Your task to perform on an android device: Open Maps and search for coffee Image 0: 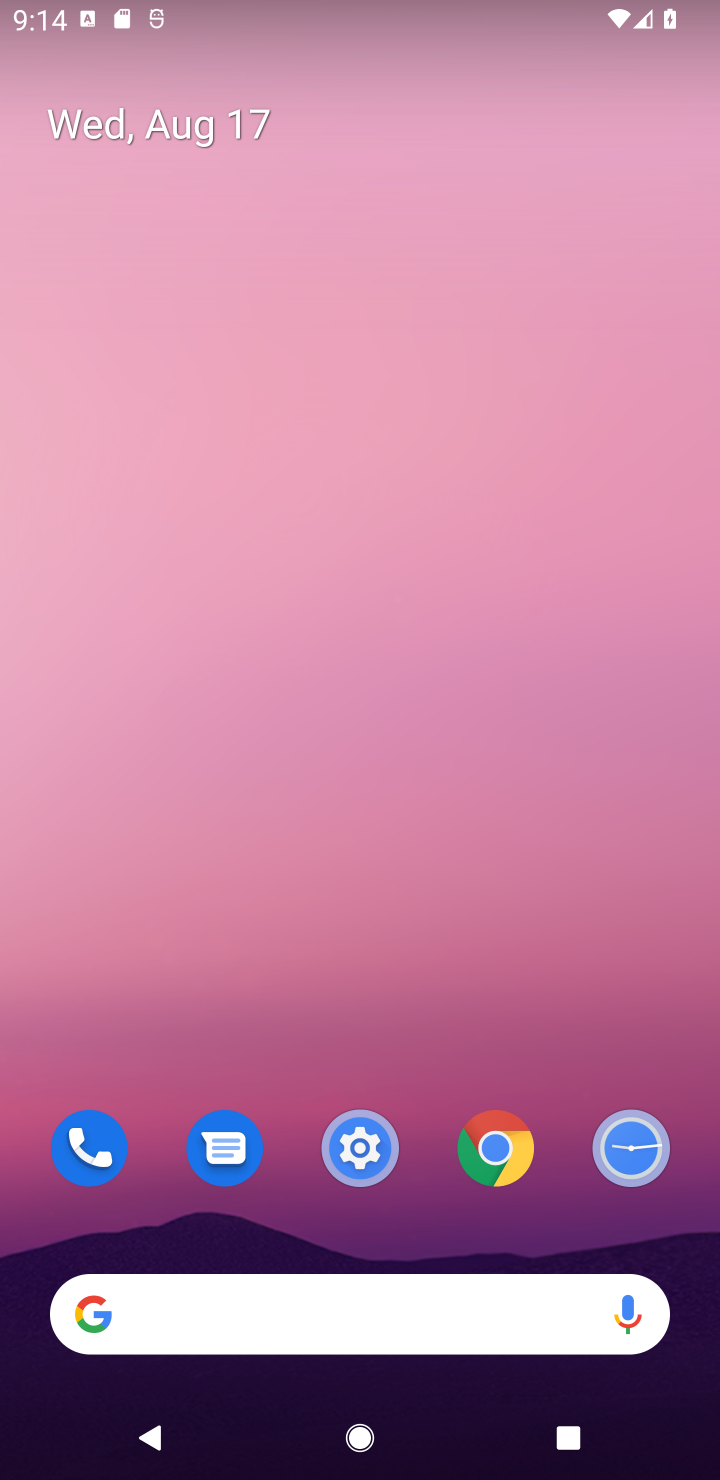
Step 0: drag from (439, 1223) to (355, 1)
Your task to perform on an android device: Open Maps and search for coffee Image 1: 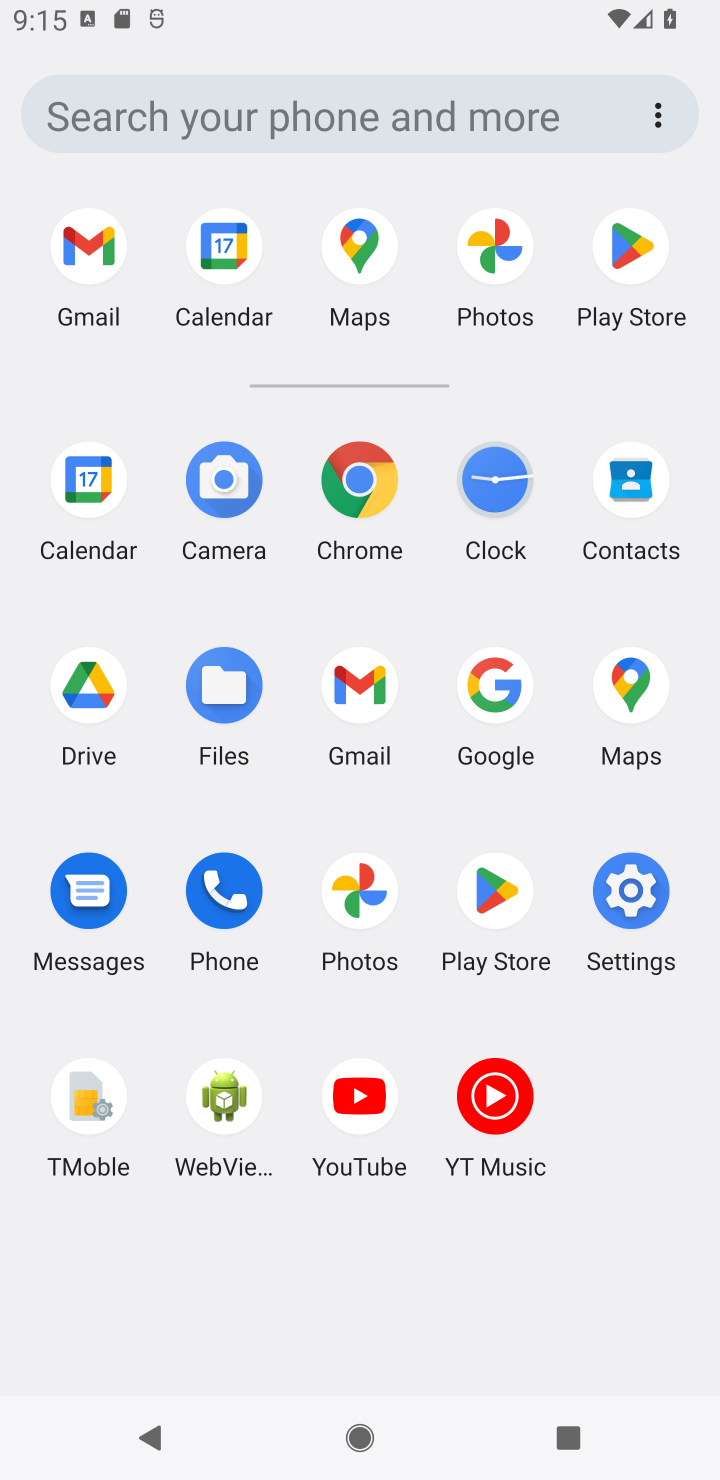
Step 1: click (634, 675)
Your task to perform on an android device: Open Maps and search for coffee Image 2: 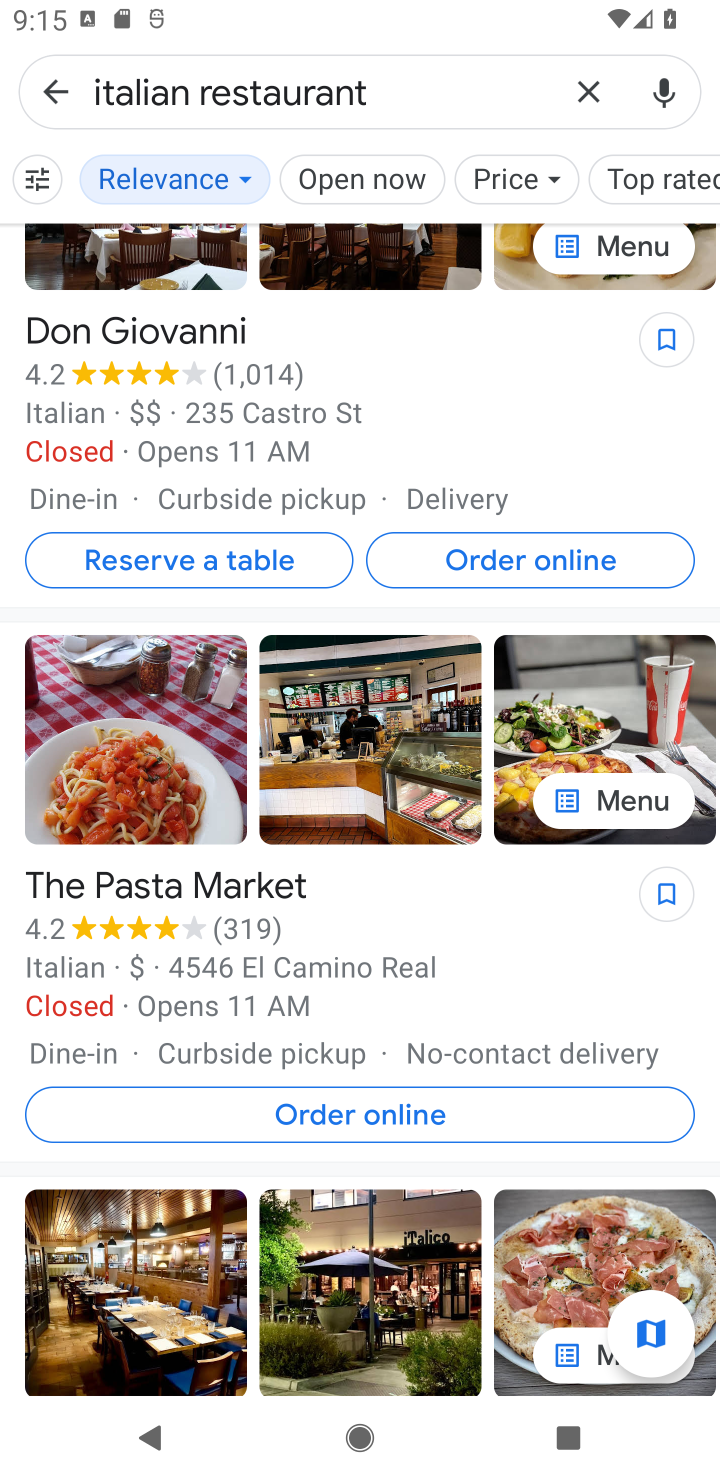
Step 2: click (591, 95)
Your task to perform on an android device: Open Maps and search for coffee Image 3: 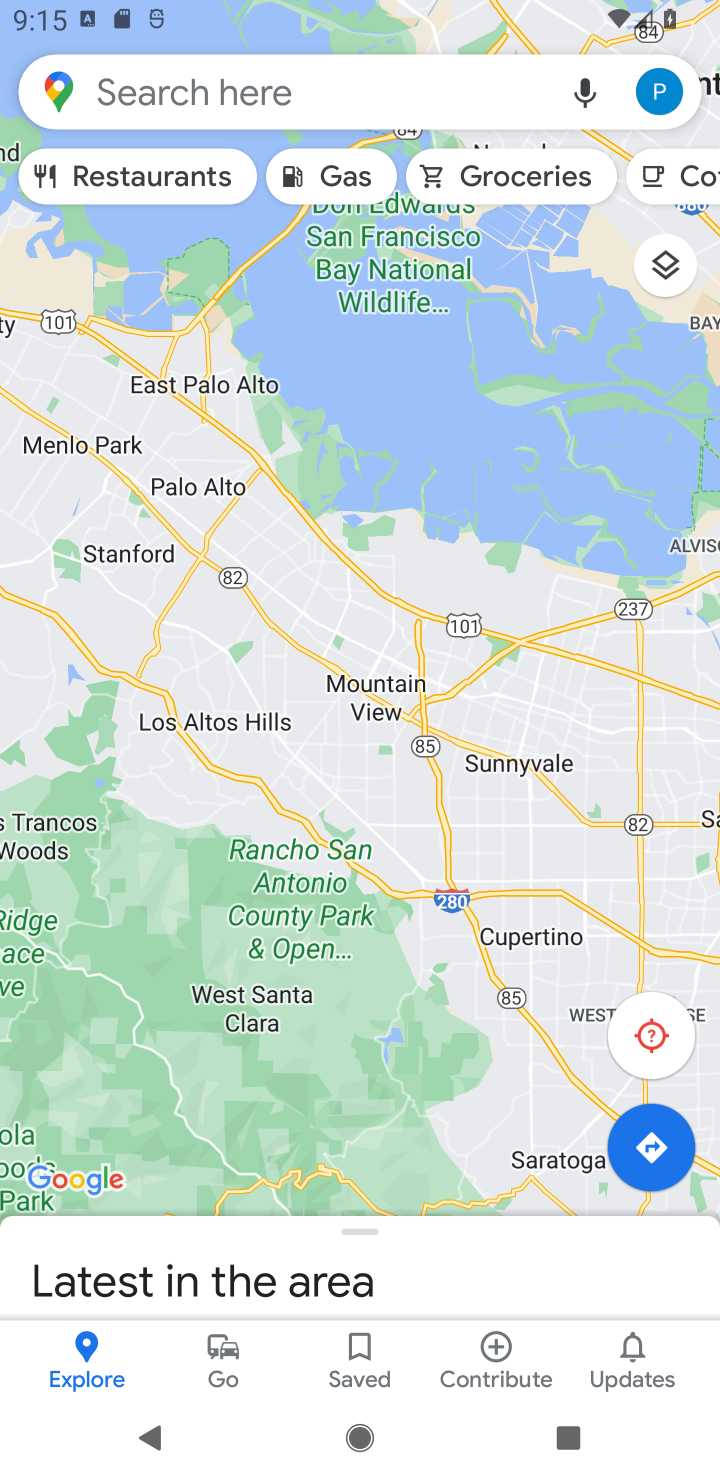
Step 3: click (410, 91)
Your task to perform on an android device: Open Maps and search for coffee Image 4: 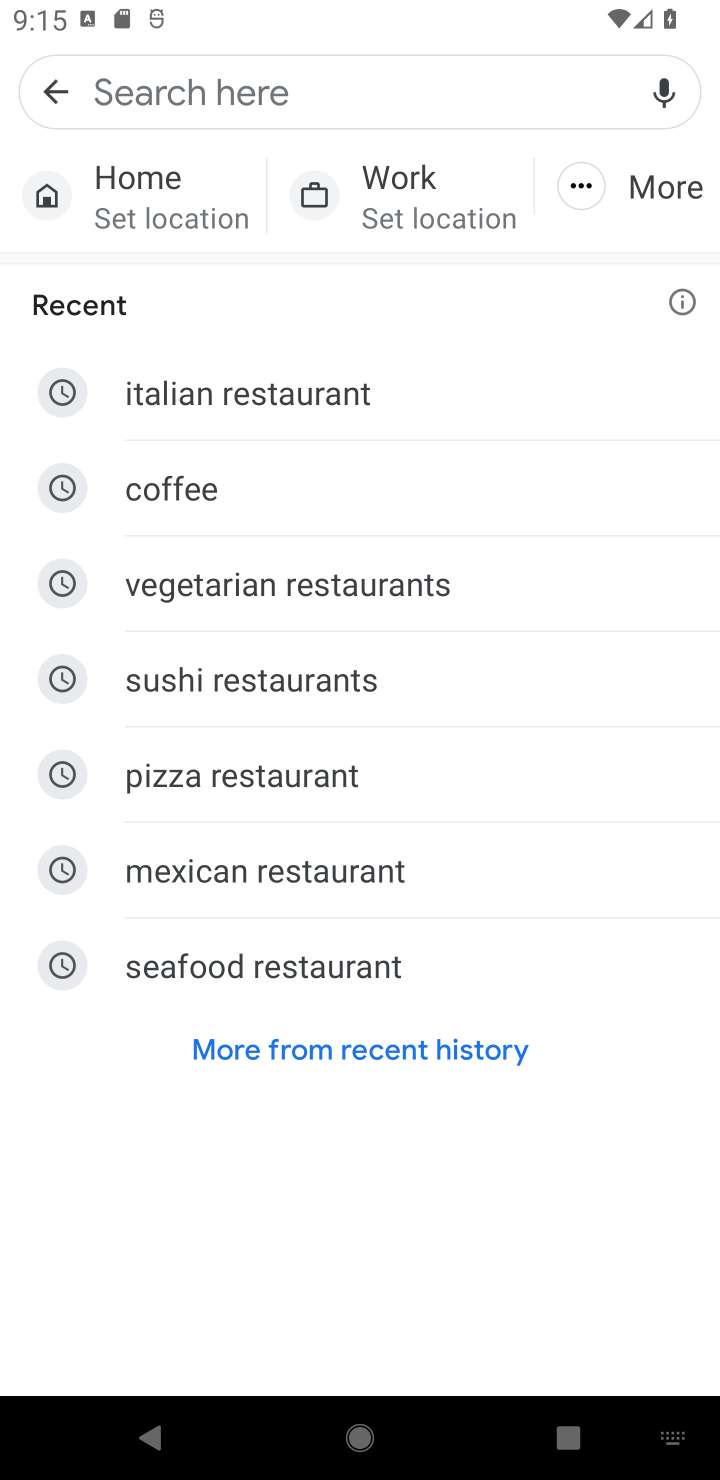
Step 4: type "coffee"
Your task to perform on an android device: Open Maps and search for coffee Image 5: 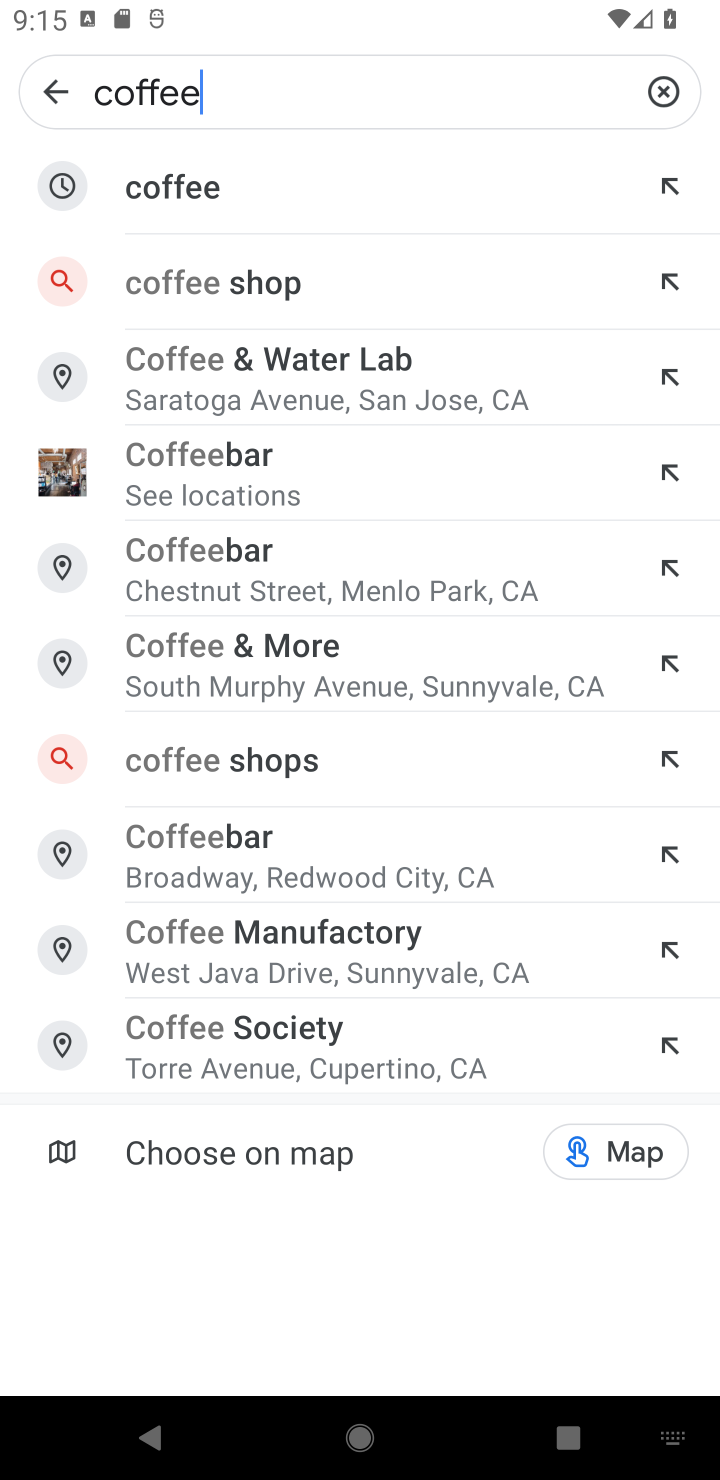
Step 5: click (192, 181)
Your task to perform on an android device: Open Maps and search for coffee Image 6: 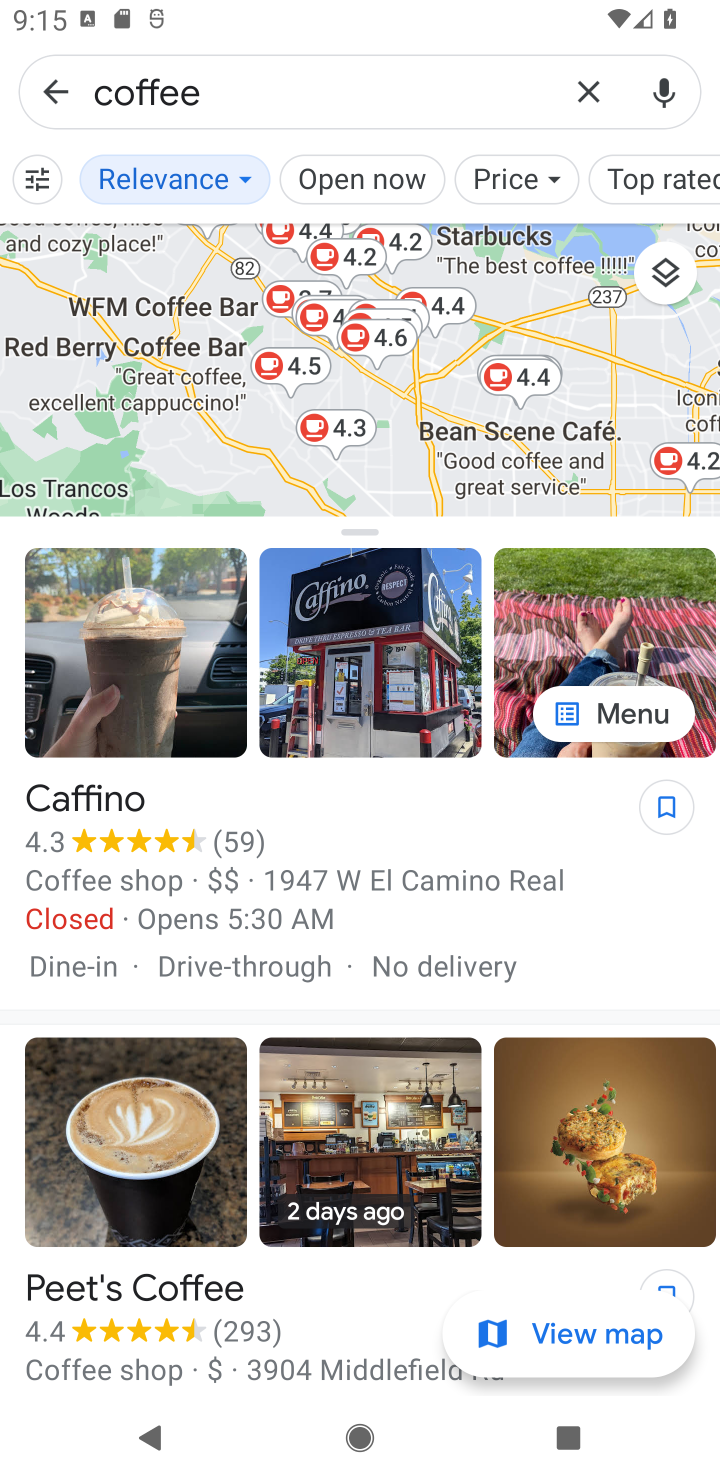
Step 6: task complete